Your task to perform on an android device: open app "Chime – Mobile Banking" (install if not already installed) and enter user name: "bullfrog@inbox.com" and password: "breaker" Image 0: 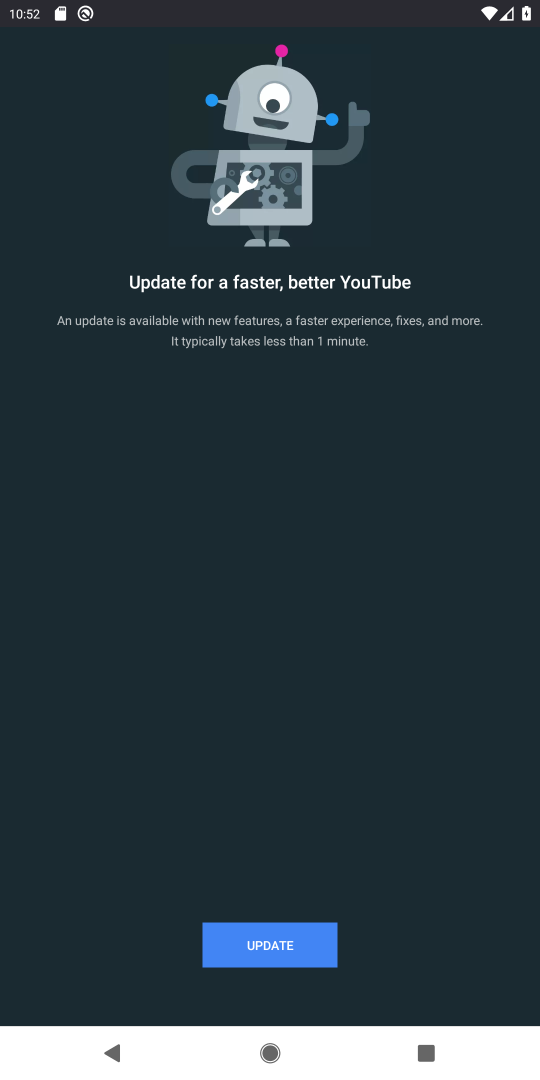
Step 0: press home button
Your task to perform on an android device: open app "Chime – Mobile Banking" (install if not already installed) and enter user name: "bullfrog@inbox.com" and password: "breaker" Image 1: 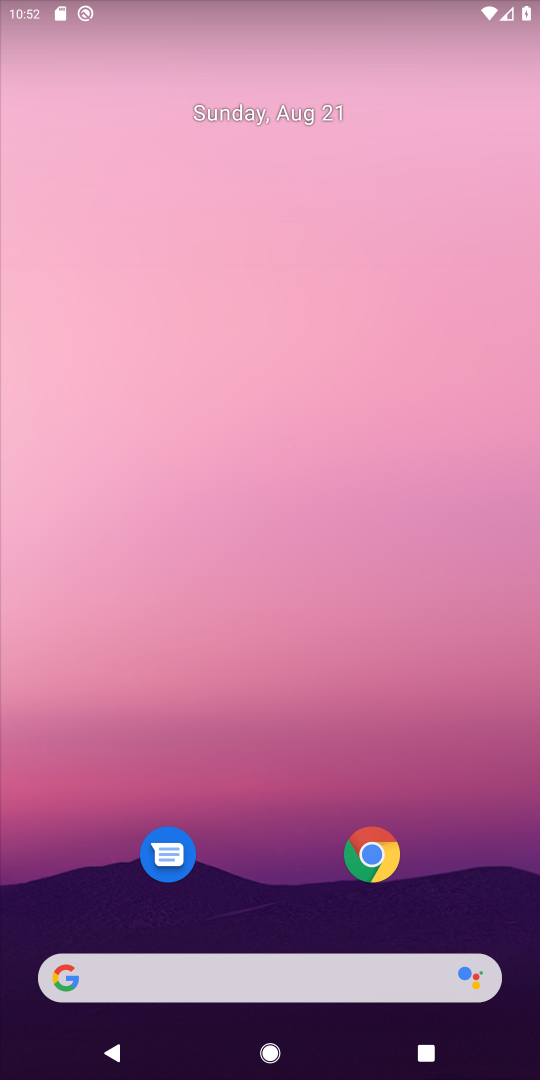
Step 1: drag from (227, 947) to (248, 242)
Your task to perform on an android device: open app "Chime – Mobile Banking" (install if not already installed) and enter user name: "bullfrog@inbox.com" and password: "breaker" Image 2: 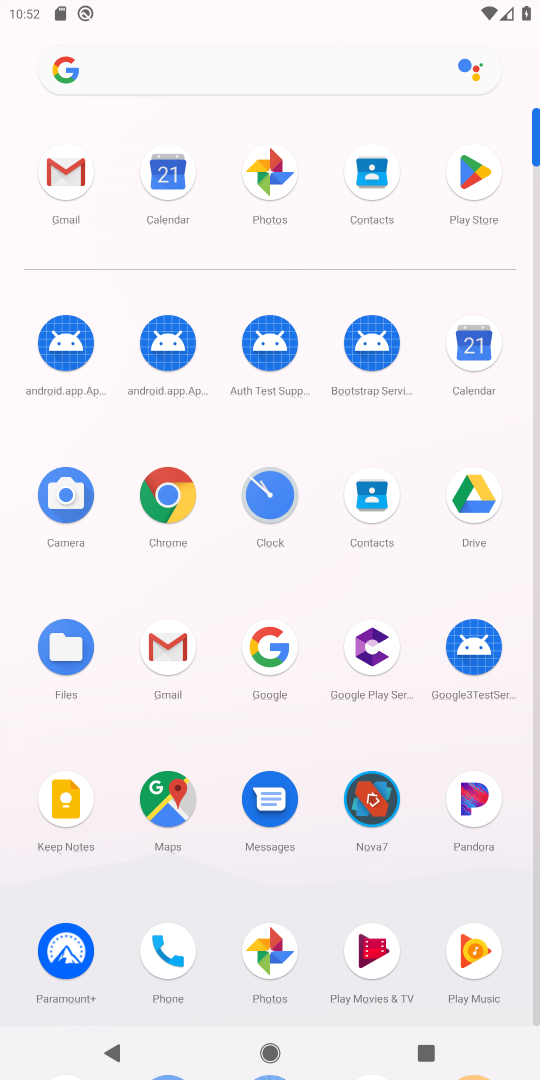
Step 2: click (462, 203)
Your task to perform on an android device: open app "Chime – Mobile Banking" (install if not already installed) and enter user name: "bullfrog@inbox.com" and password: "breaker" Image 3: 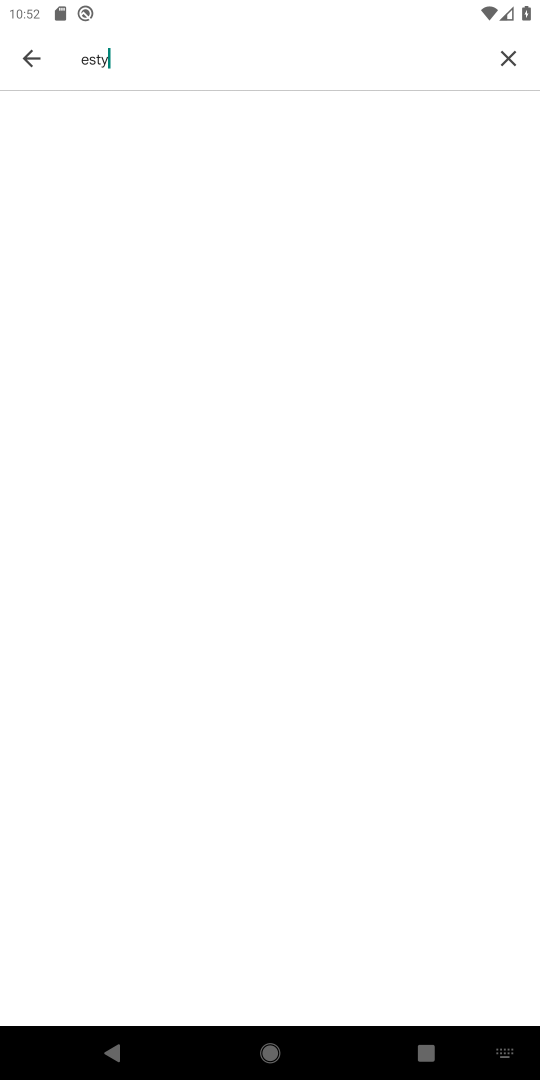
Step 3: click (498, 67)
Your task to perform on an android device: open app "Chime – Mobile Banking" (install if not already installed) and enter user name: "bullfrog@inbox.com" and password: "breaker" Image 4: 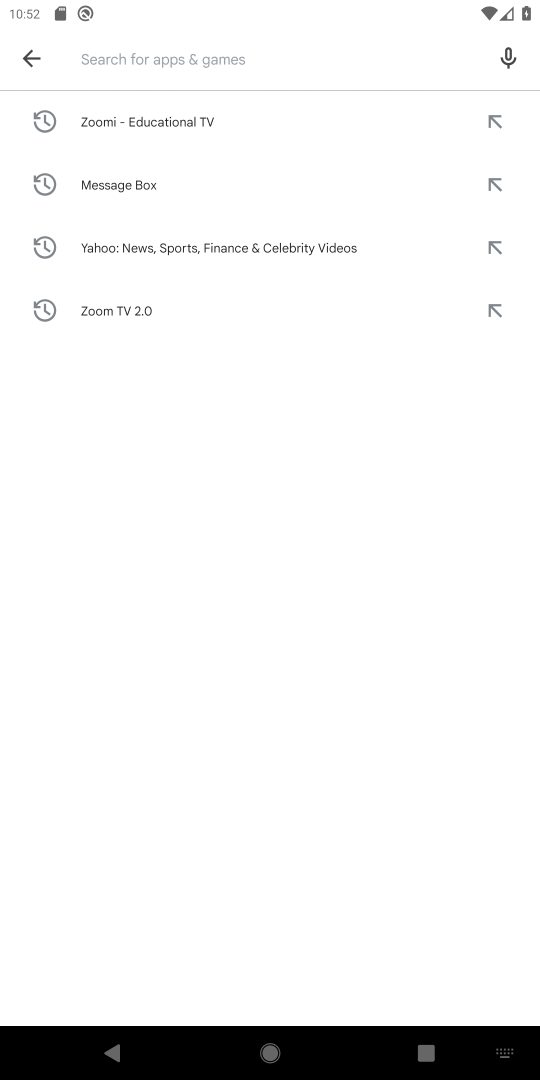
Step 4: type "chime"
Your task to perform on an android device: open app "Chime – Mobile Banking" (install if not already installed) and enter user name: "bullfrog@inbox.com" and password: "breaker" Image 5: 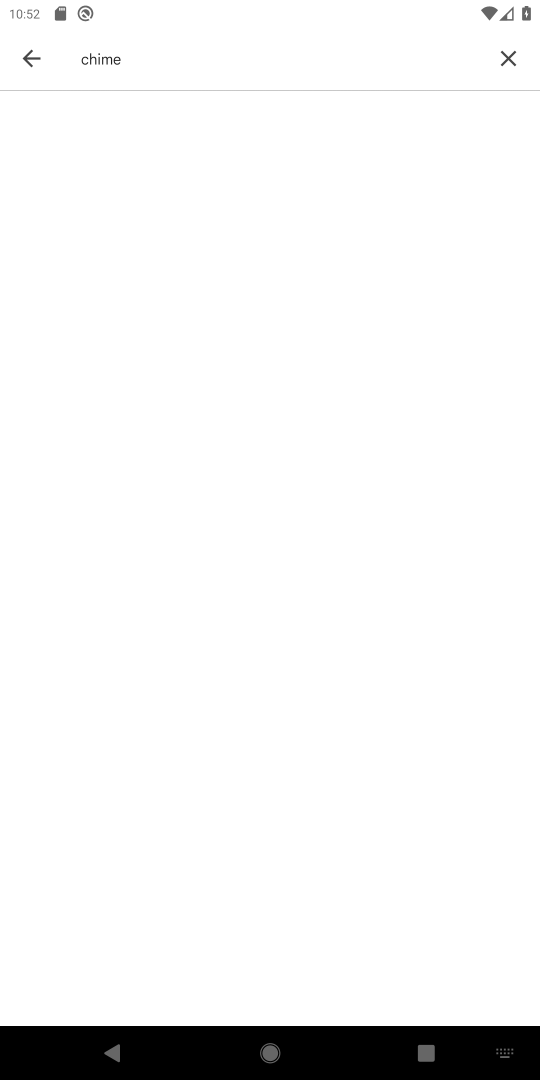
Step 5: task complete